Your task to perform on an android device: turn off location history Image 0: 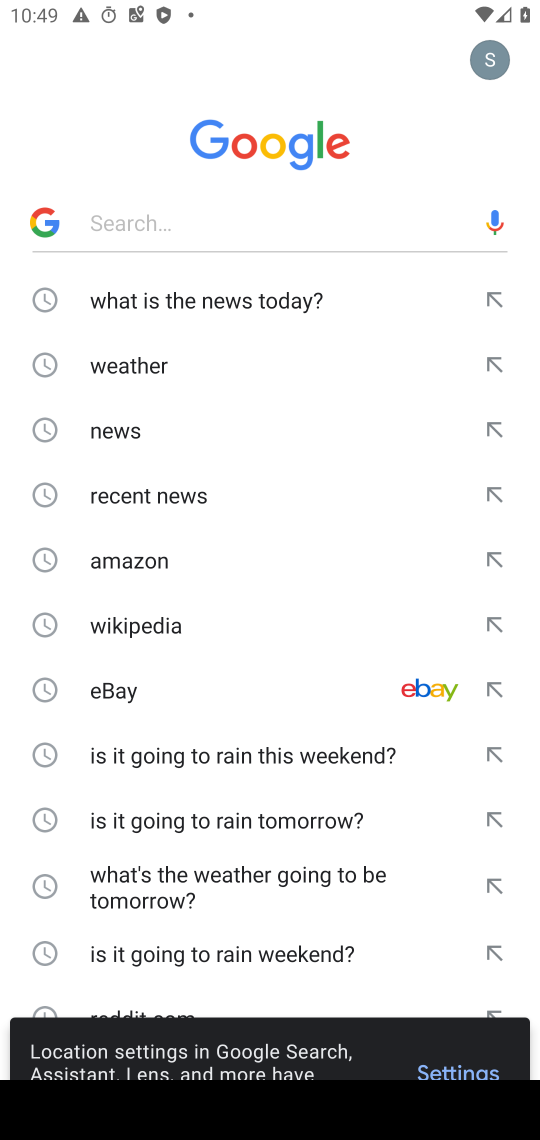
Step 0: press home button
Your task to perform on an android device: turn off location history Image 1: 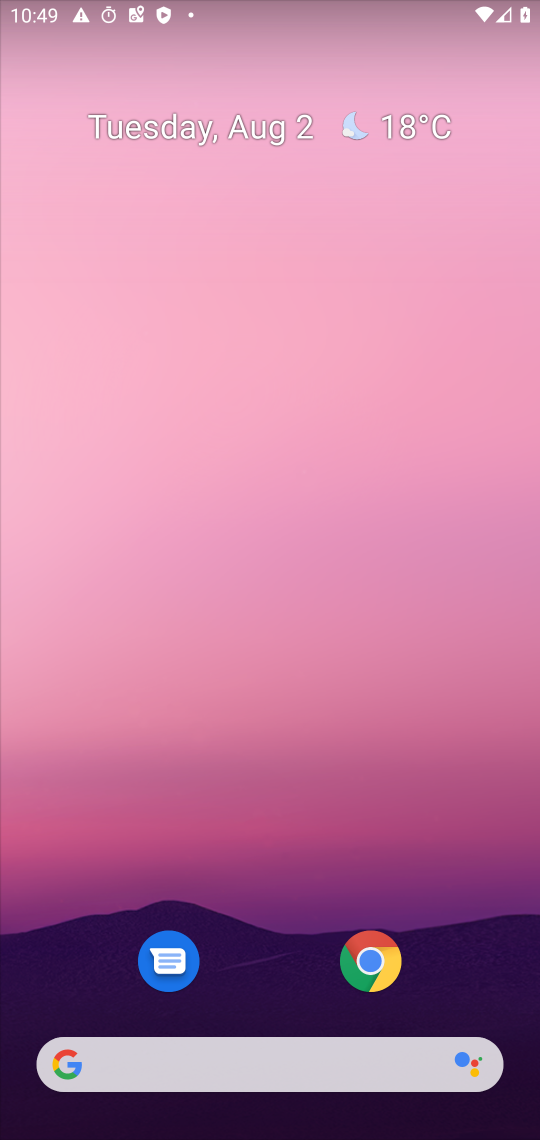
Step 1: drag from (390, 617) to (293, 789)
Your task to perform on an android device: turn off location history Image 2: 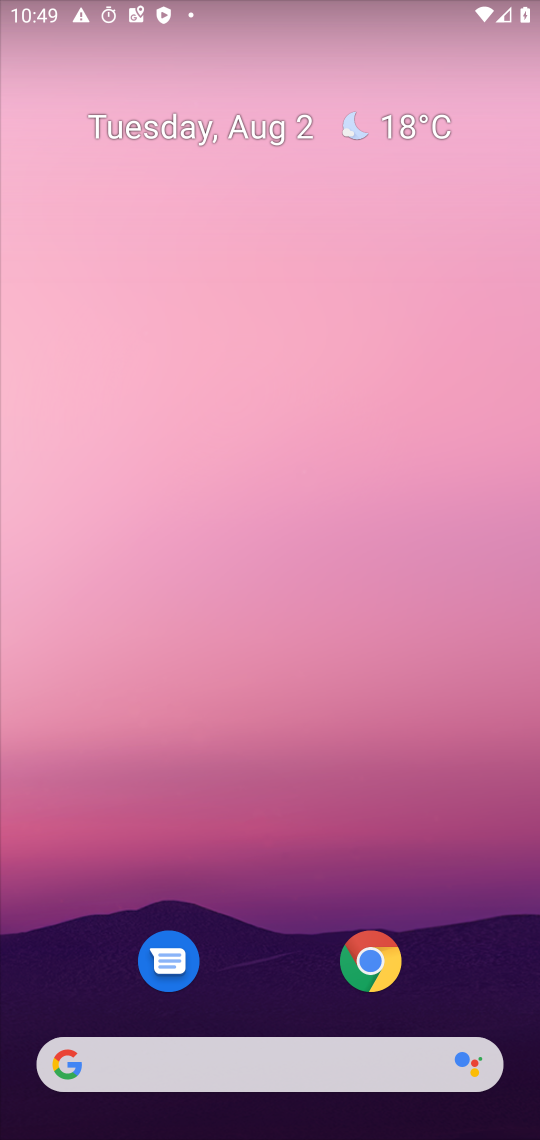
Step 2: click (378, 961)
Your task to perform on an android device: turn off location history Image 3: 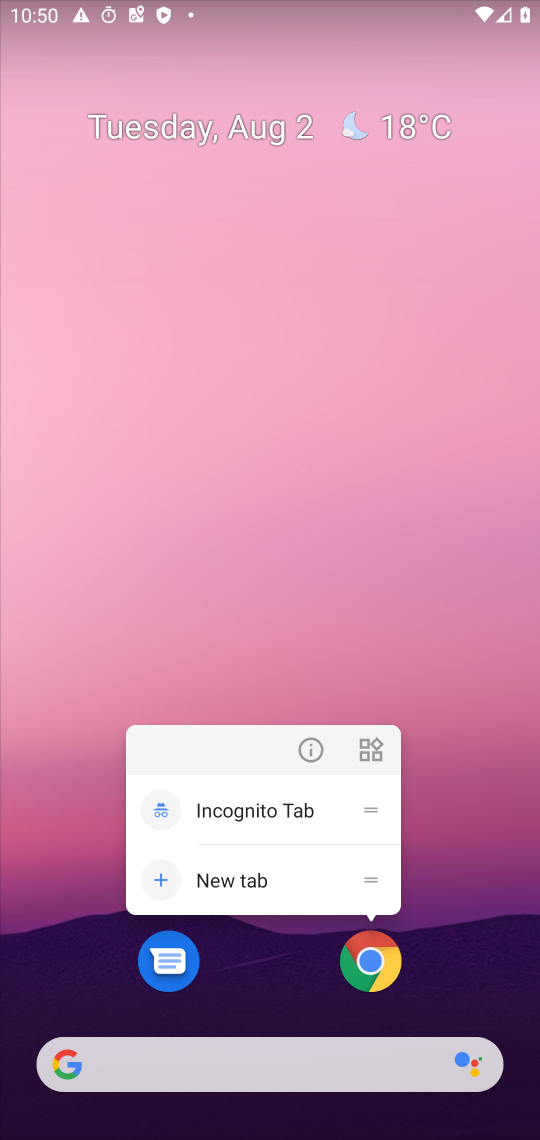
Step 3: click (223, 961)
Your task to perform on an android device: turn off location history Image 4: 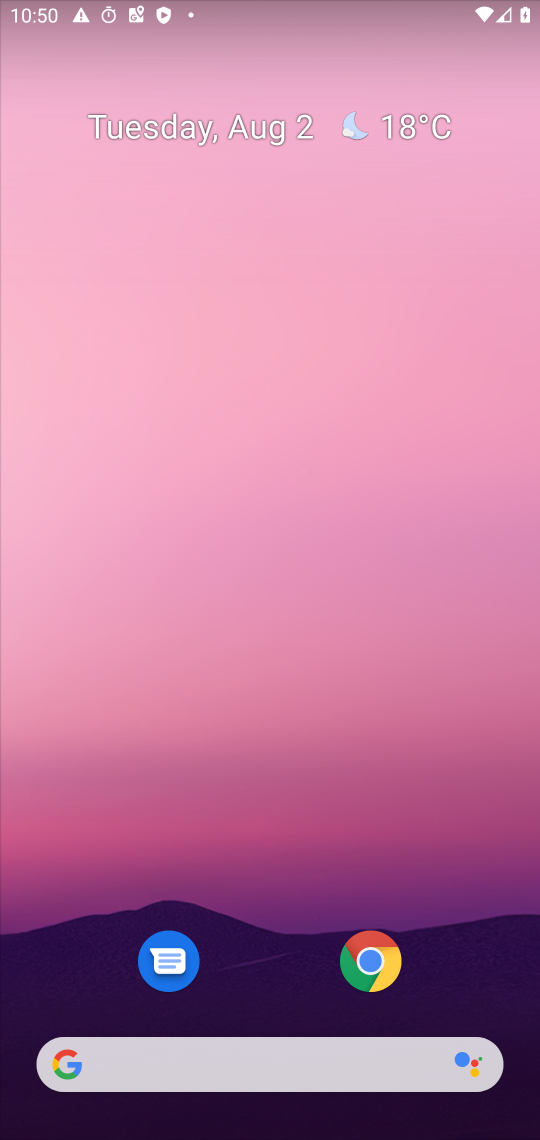
Step 4: drag from (268, 751) to (275, 90)
Your task to perform on an android device: turn off location history Image 5: 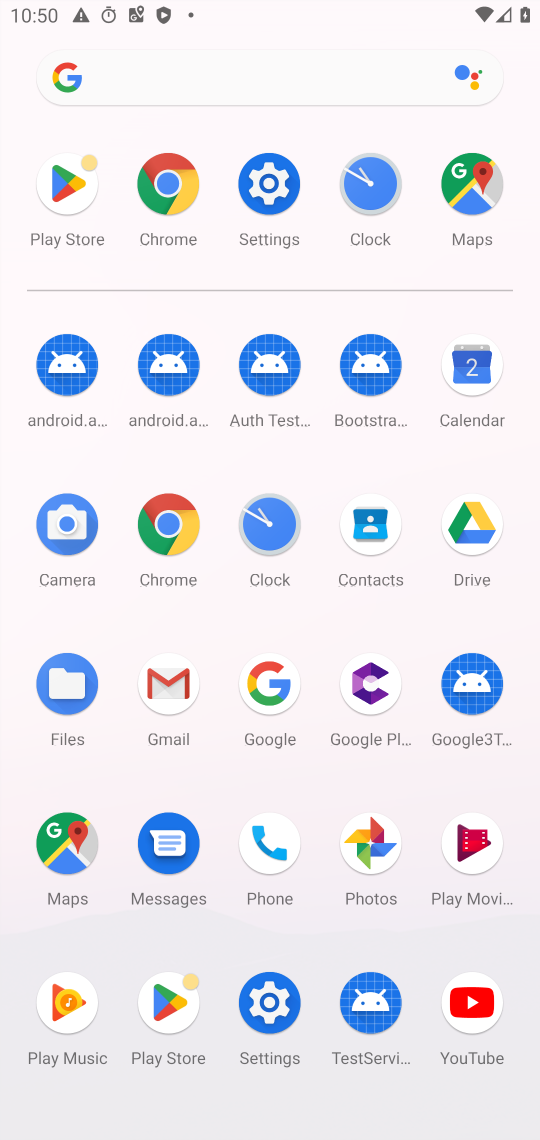
Step 5: click (31, 879)
Your task to perform on an android device: turn off location history Image 6: 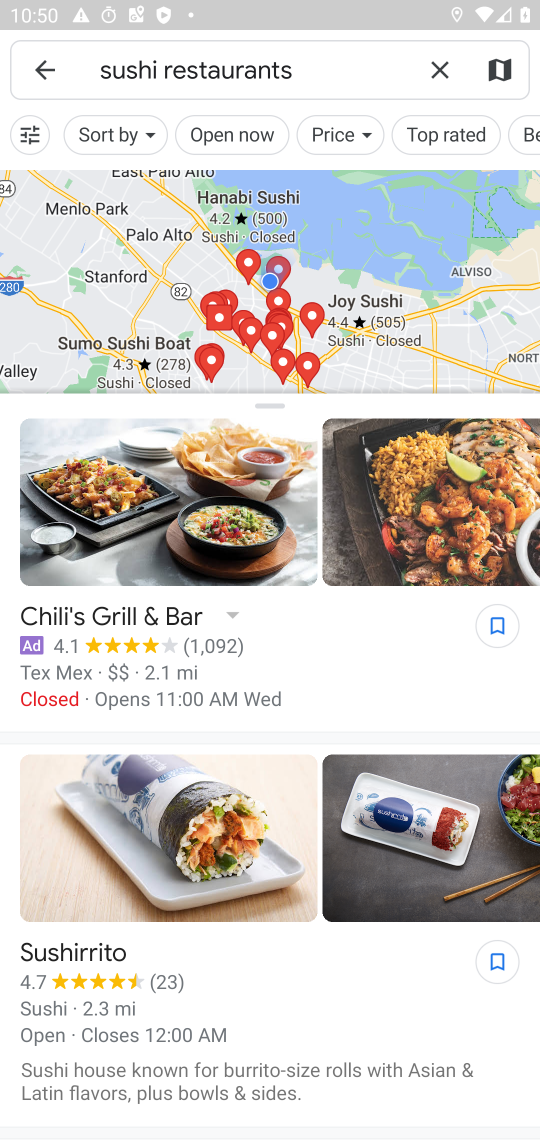
Step 6: click (43, 62)
Your task to perform on an android device: turn off location history Image 7: 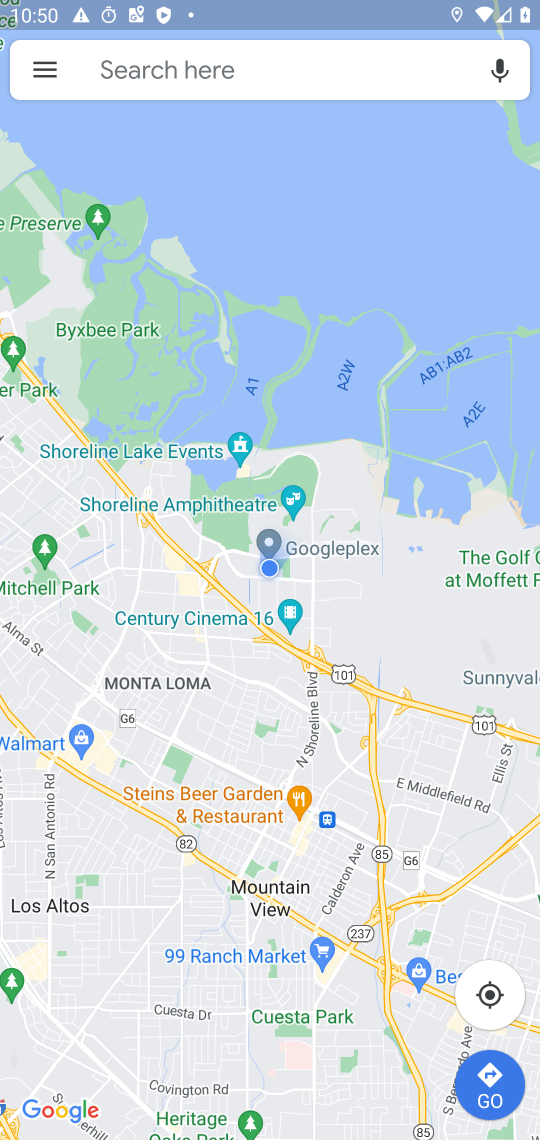
Step 7: click (43, 62)
Your task to perform on an android device: turn off location history Image 8: 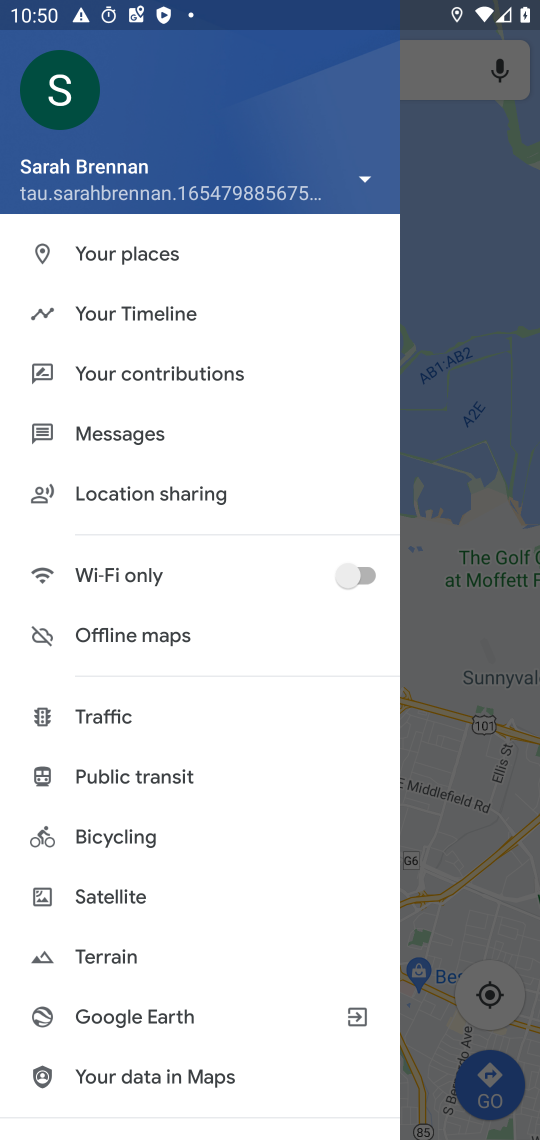
Step 8: click (115, 310)
Your task to perform on an android device: turn off location history Image 9: 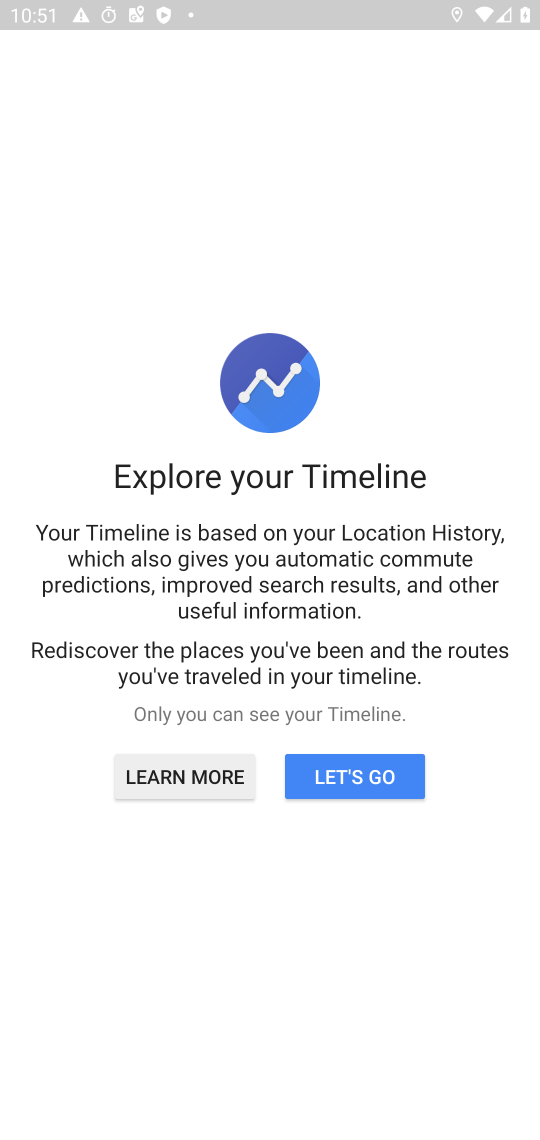
Step 9: click (373, 765)
Your task to perform on an android device: turn off location history Image 10: 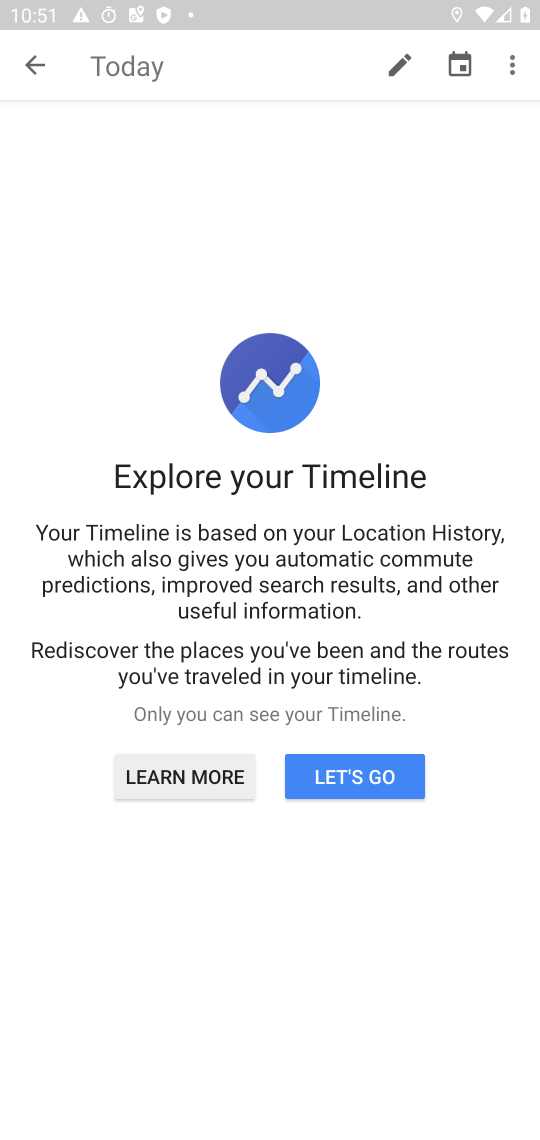
Step 10: click (373, 765)
Your task to perform on an android device: turn off location history Image 11: 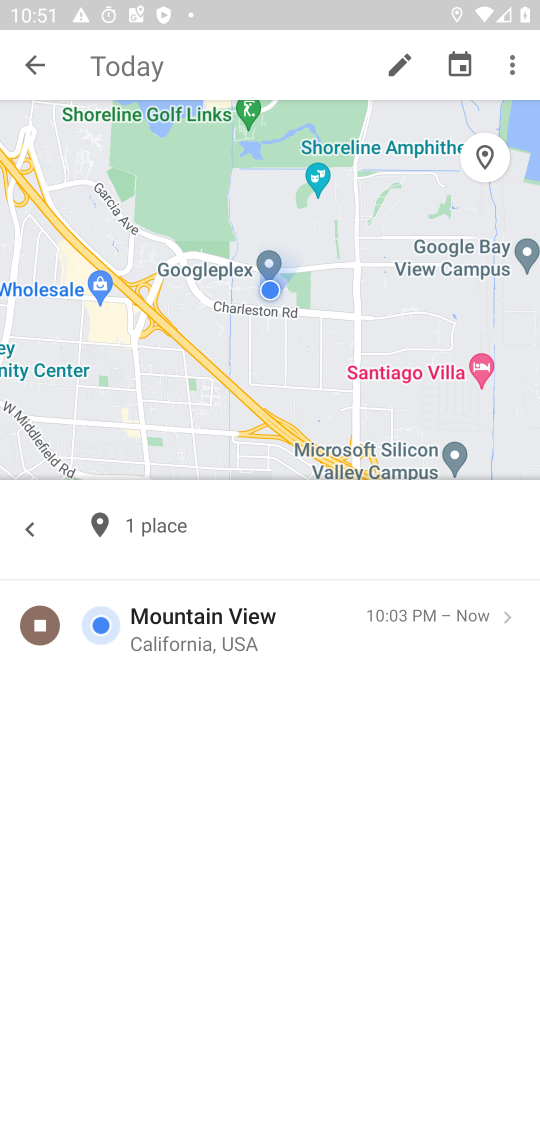
Step 11: click (499, 76)
Your task to perform on an android device: turn off location history Image 12: 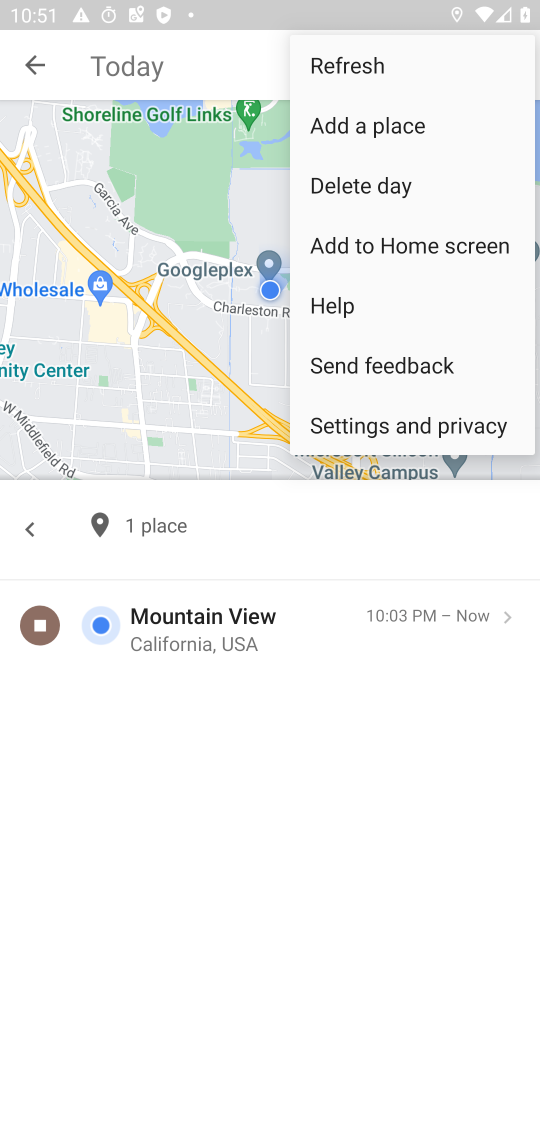
Step 12: click (409, 430)
Your task to perform on an android device: turn off location history Image 13: 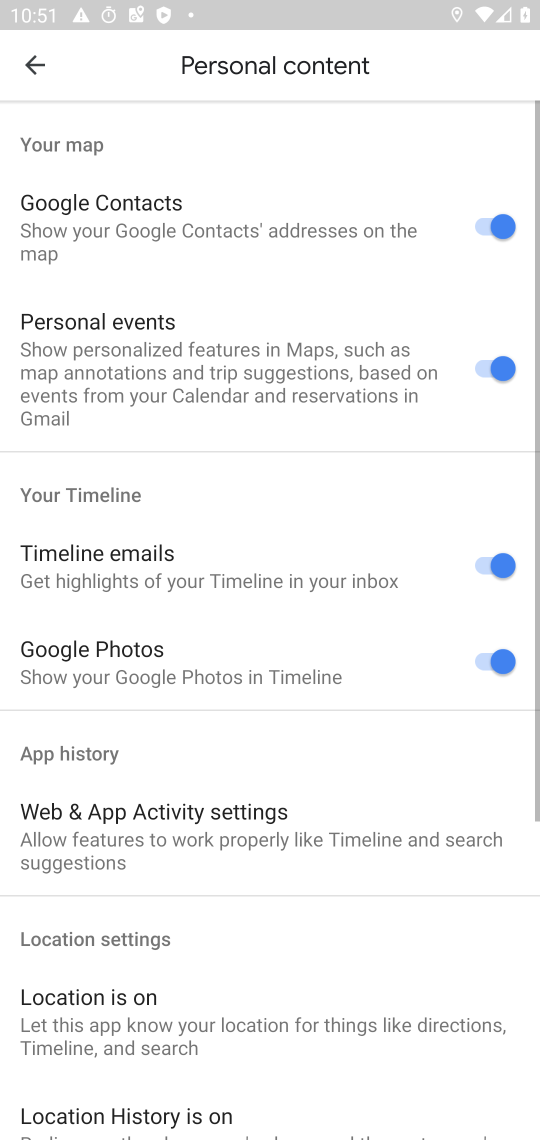
Step 13: click (275, 982)
Your task to perform on an android device: turn off location history Image 14: 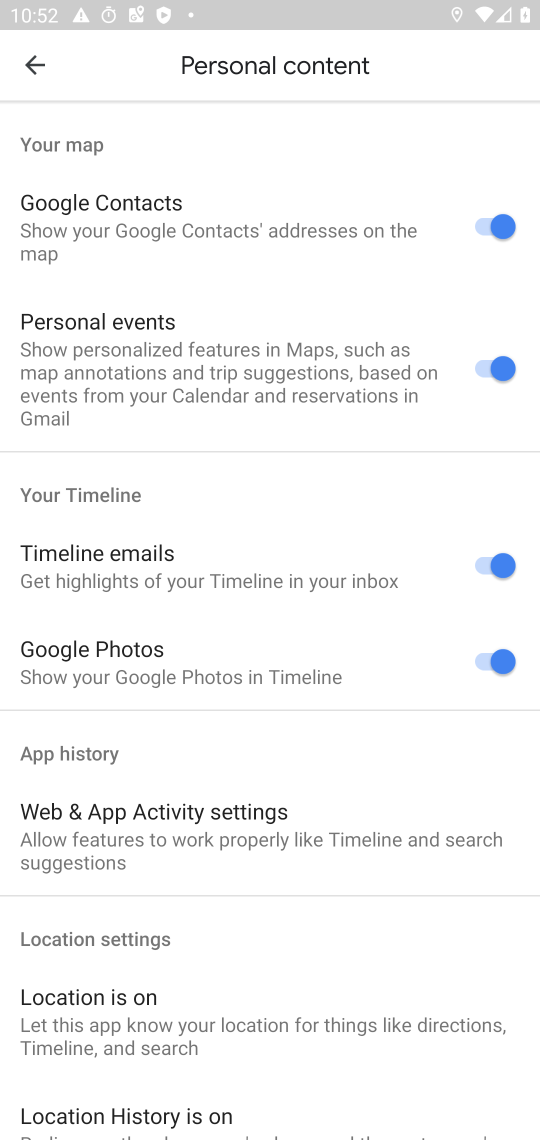
Step 14: drag from (368, 895) to (382, 484)
Your task to perform on an android device: turn off location history Image 15: 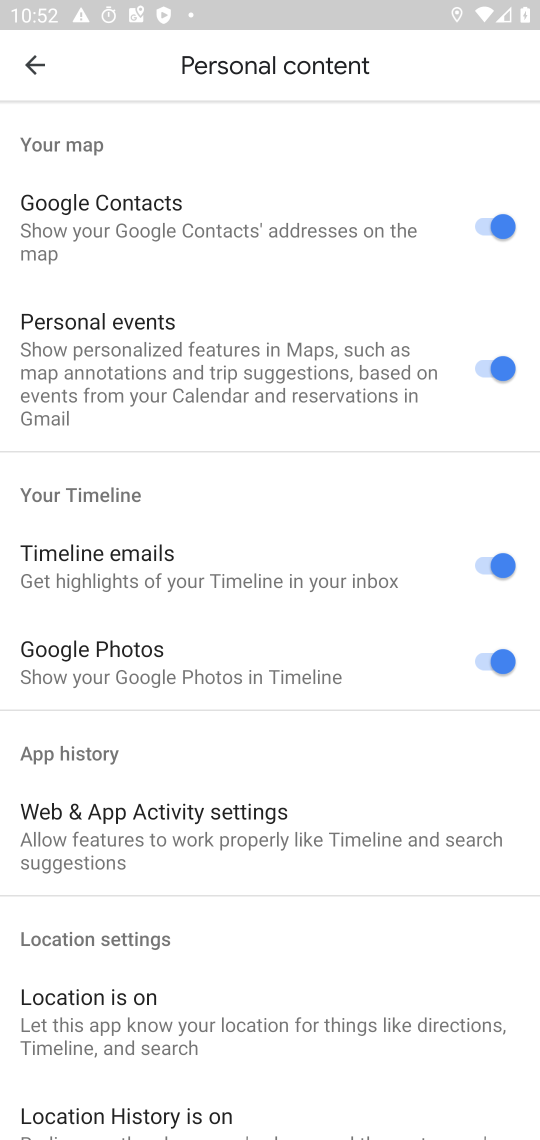
Step 15: drag from (318, 904) to (193, 7)
Your task to perform on an android device: turn off location history Image 16: 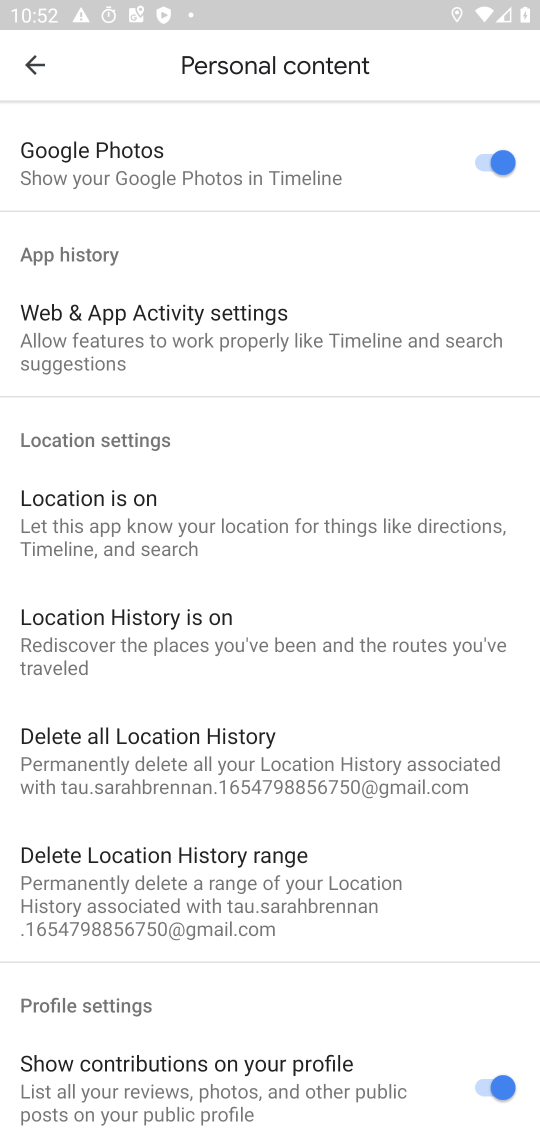
Step 16: click (136, 611)
Your task to perform on an android device: turn off location history Image 17: 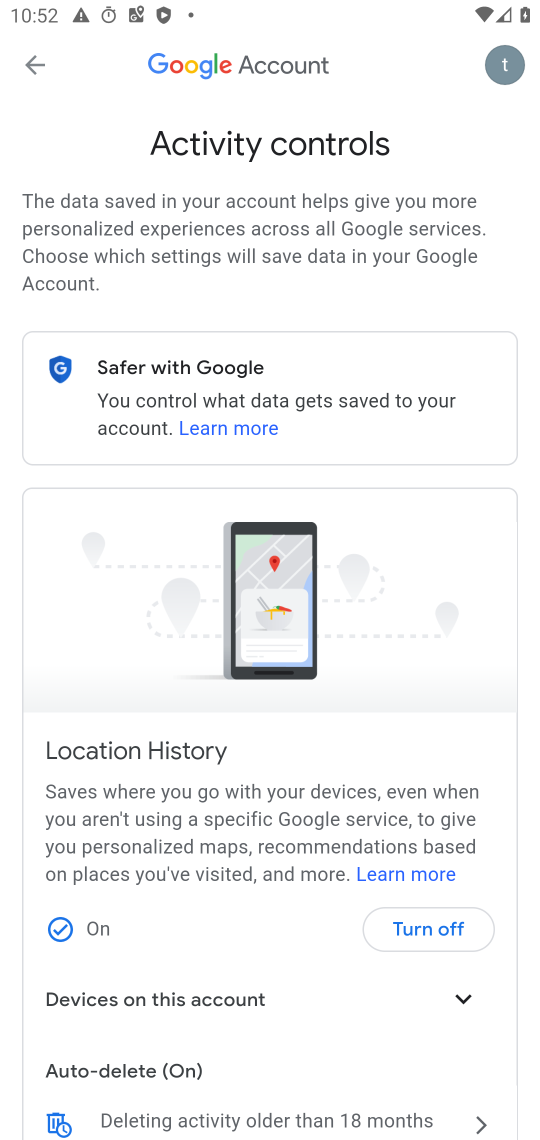
Step 17: drag from (211, 834) to (219, 546)
Your task to perform on an android device: turn off location history Image 18: 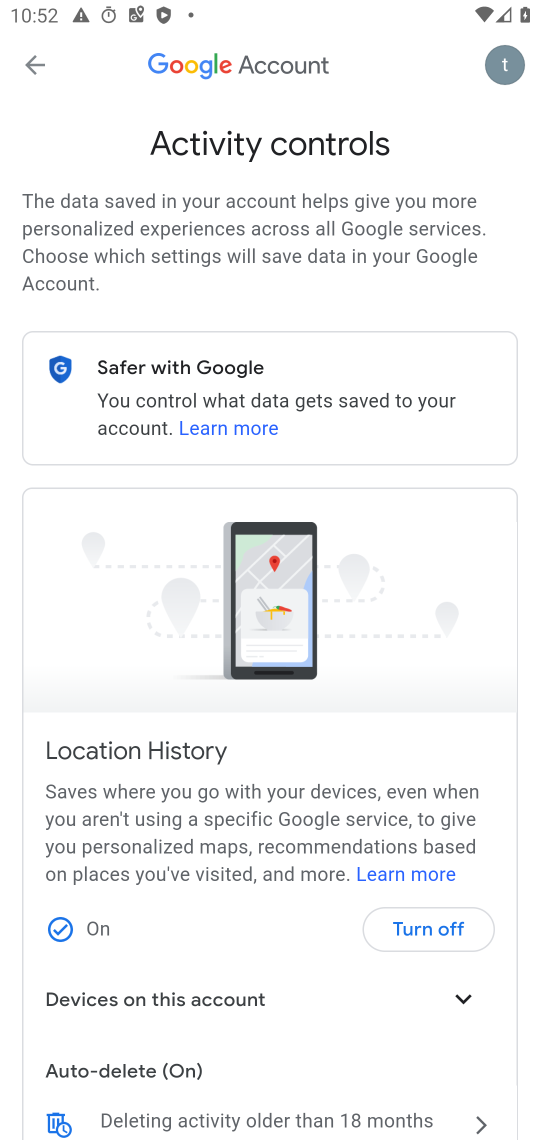
Step 18: drag from (247, 774) to (192, 380)
Your task to perform on an android device: turn off location history Image 19: 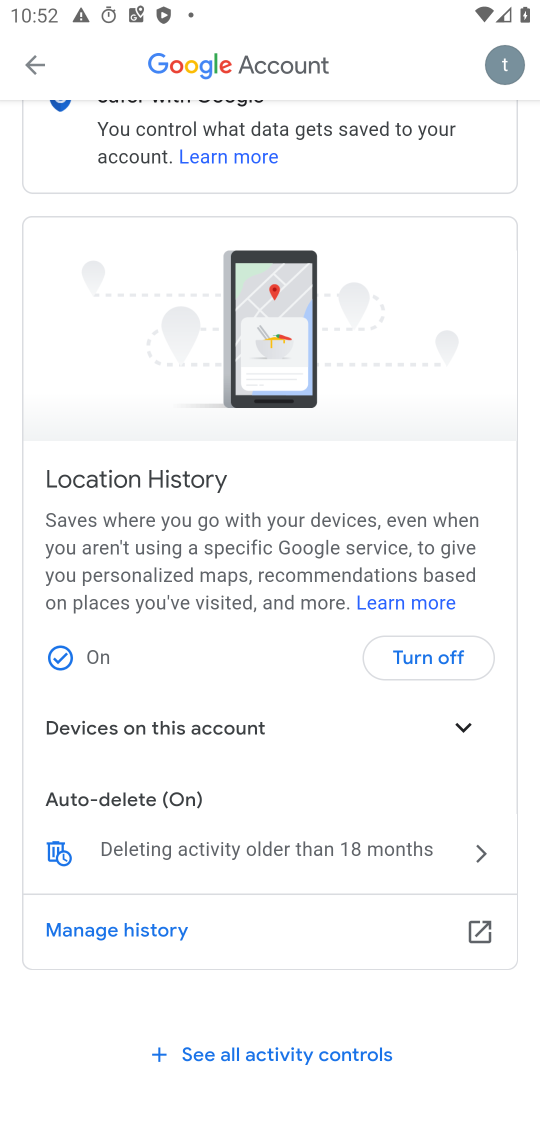
Step 19: click (384, 655)
Your task to perform on an android device: turn off location history Image 20: 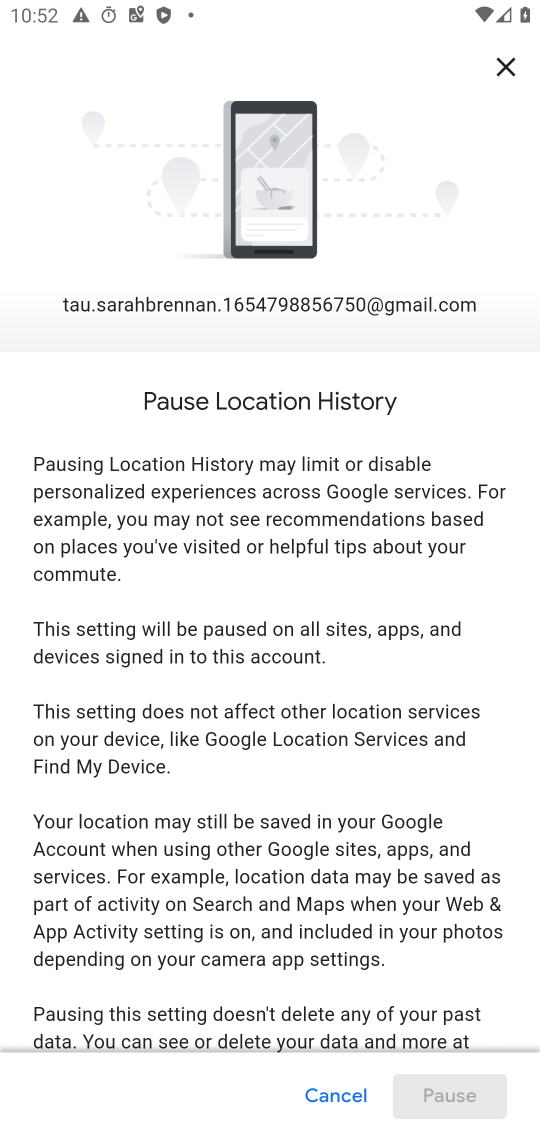
Step 20: drag from (285, 875) to (370, 46)
Your task to perform on an android device: turn off location history Image 21: 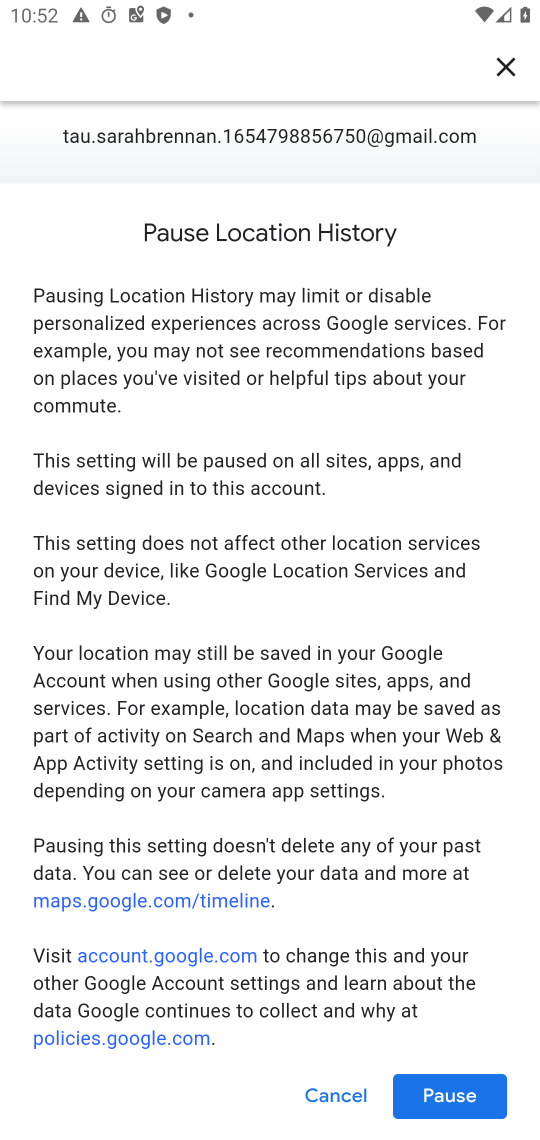
Step 21: click (440, 1108)
Your task to perform on an android device: turn off location history Image 22: 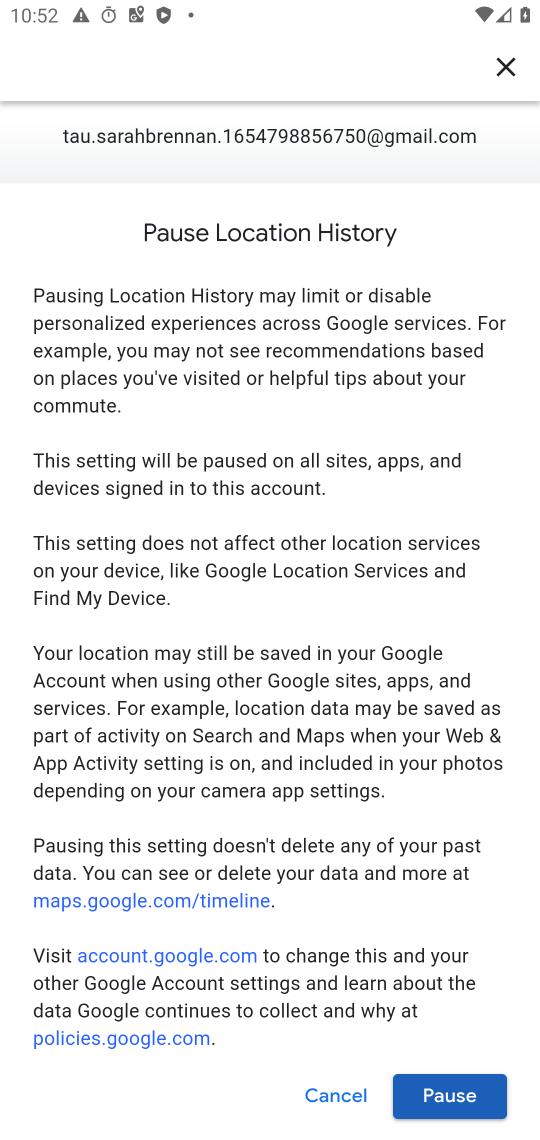
Step 22: click (447, 1105)
Your task to perform on an android device: turn off location history Image 23: 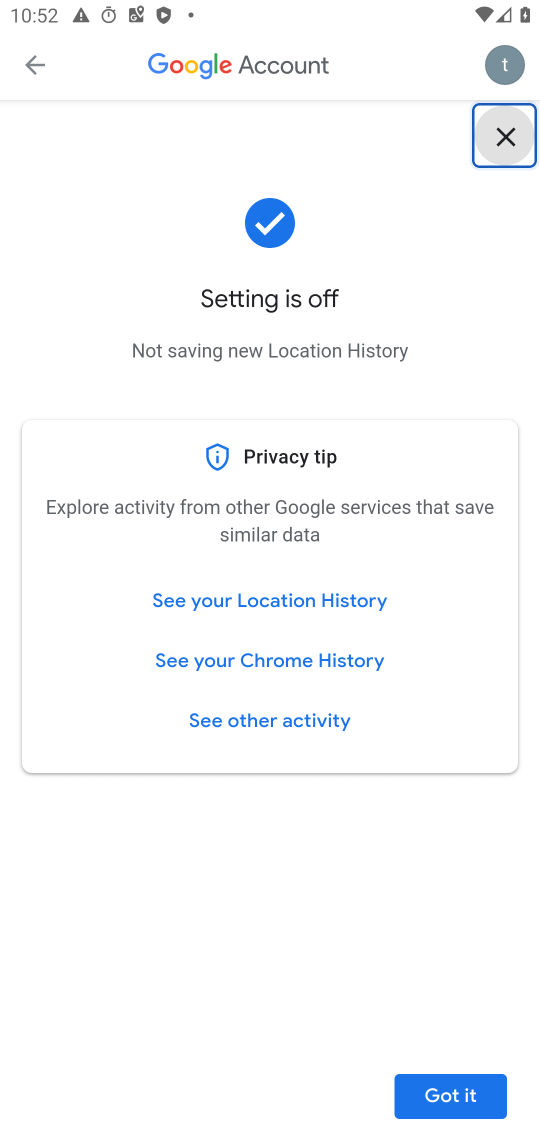
Step 23: click (402, 1105)
Your task to perform on an android device: turn off location history Image 24: 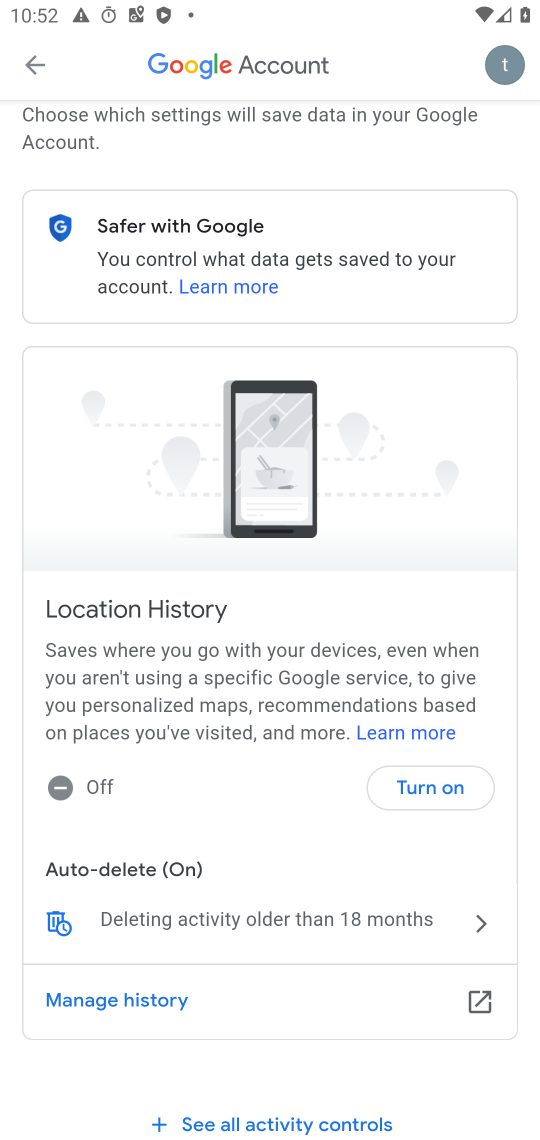
Step 24: task complete